Your task to perform on an android device: set an alarm Image 0: 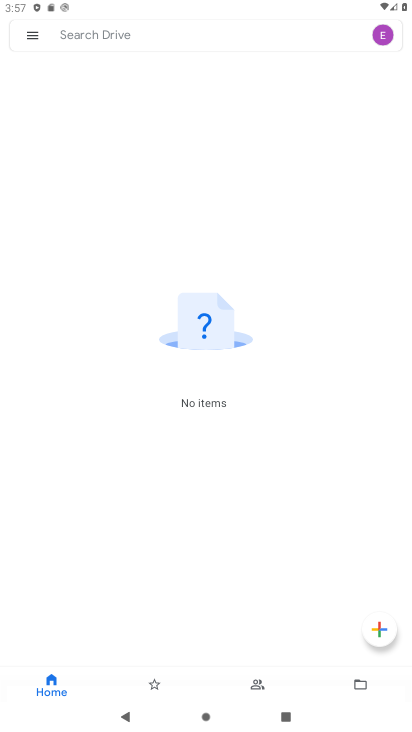
Step 0: press home button
Your task to perform on an android device: set an alarm Image 1: 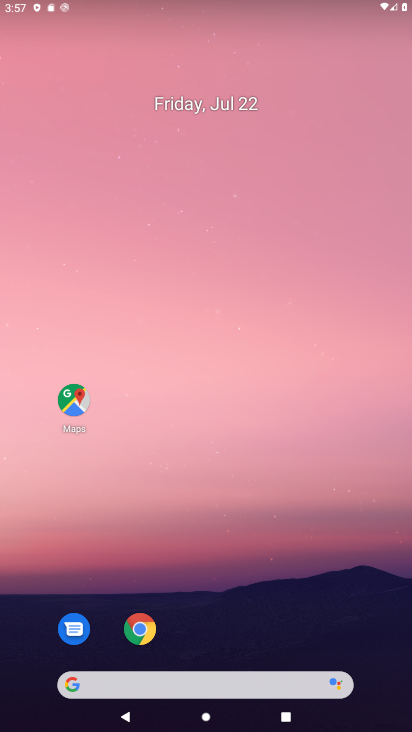
Step 1: drag from (312, 620) to (258, 143)
Your task to perform on an android device: set an alarm Image 2: 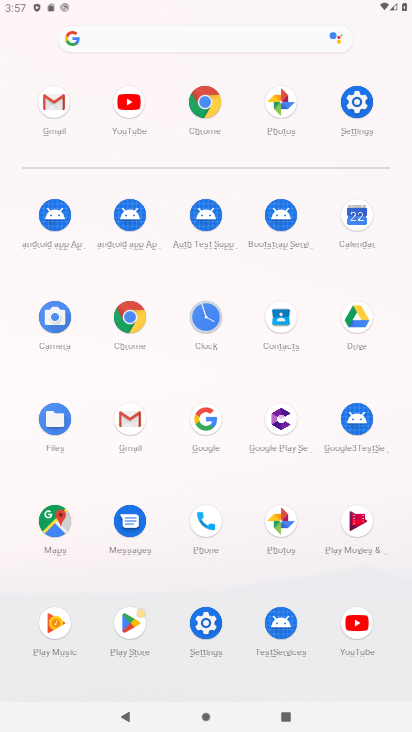
Step 2: click (213, 319)
Your task to perform on an android device: set an alarm Image 3: 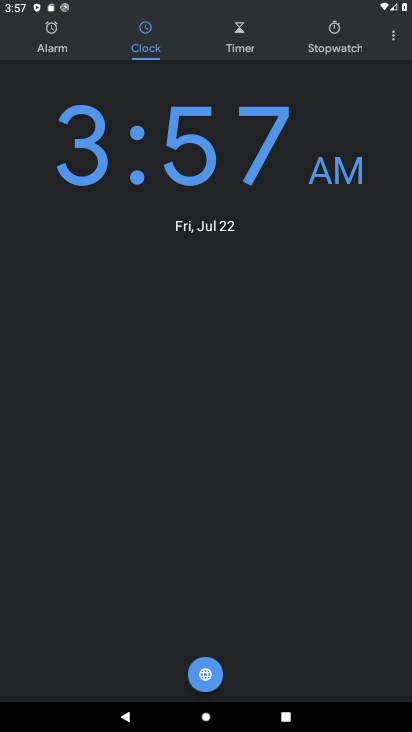
Step 3: click (34, 38)
Your task to perform on an android device: set an alarm Image 4: 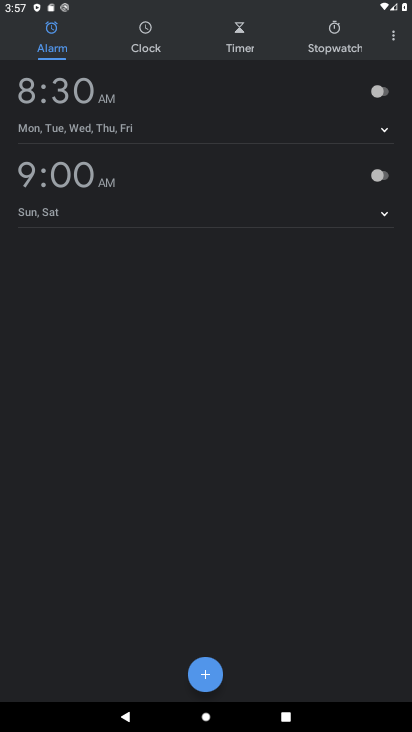
Step 4: click (203, 666)
Your task to perform on an android device: set an alarm Image 5: 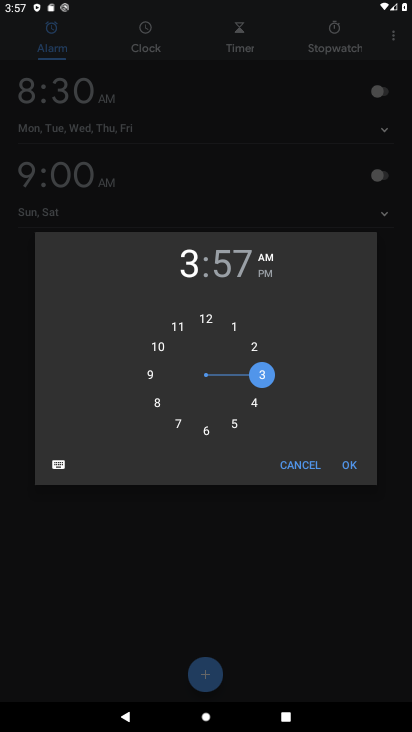
Step 5: click (358, 468)
Your task to perform on an android device: set an alarm Image 6: 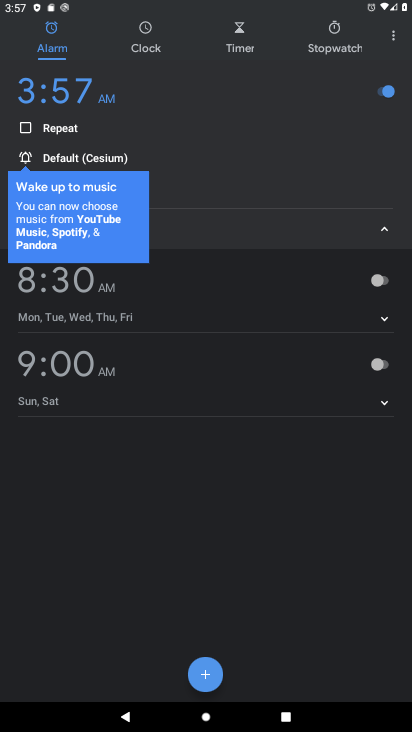
Step 6: task complete